Your task to perform on an android device: Is it going to rain this weekend? Image 0: 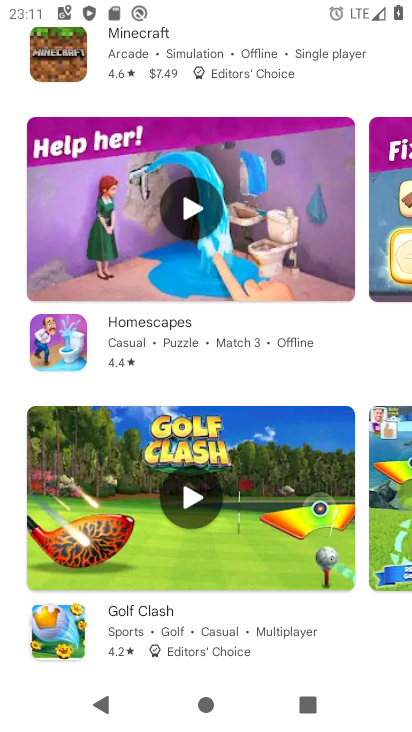
Step 0: press home button
Your task to perform on an android device: Is it going to rain this weekend? Image 1: 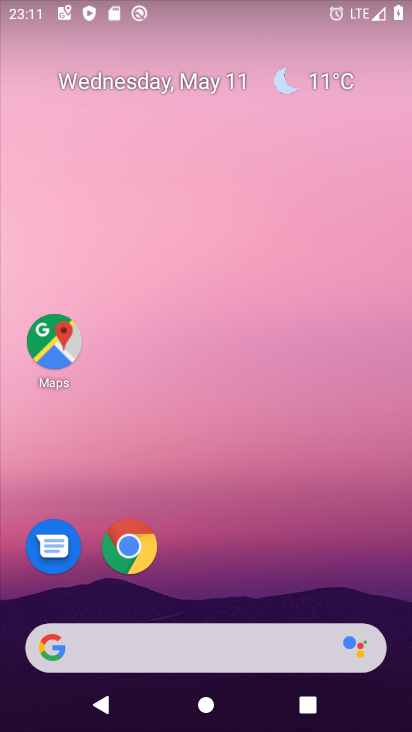
Step 1: click (313, 78)
Your task to perform on an android device: Is it going to rain this weekend? Image 2: 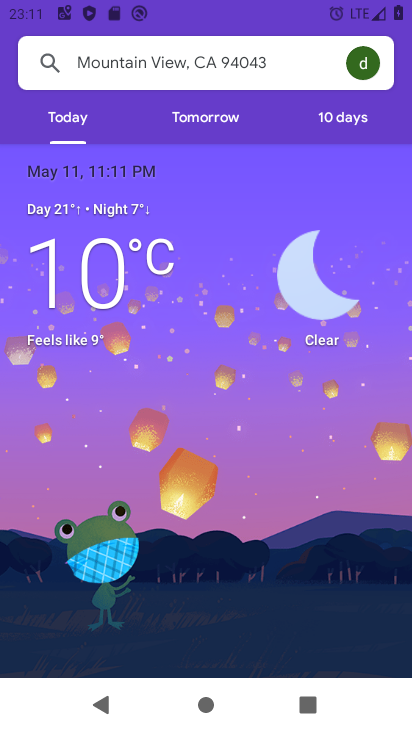
Step 2: click (339, 114)
Your task to perform on an android device: Is it going to rain this weekend? Image 3: 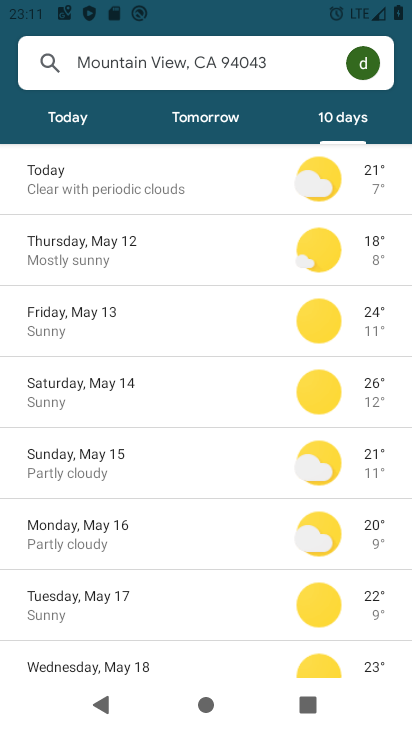
Step 3: task complete